Your task to perform on an android device: Open battery settings Image 0: 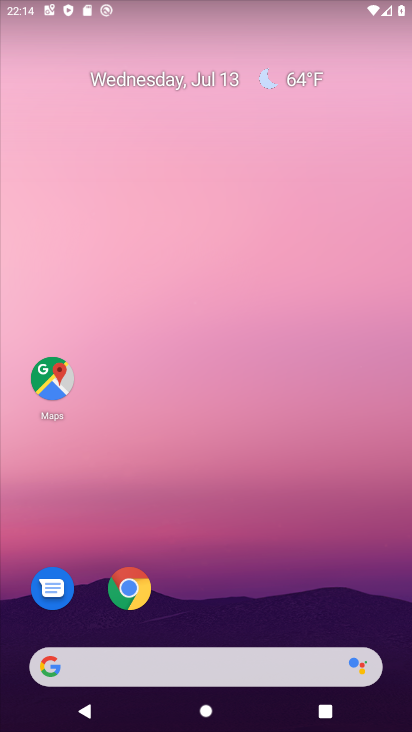
Step 0: drag from (193, 522) to (272, 32)
Your task to perform on an android device: Open battery settings Image 1: 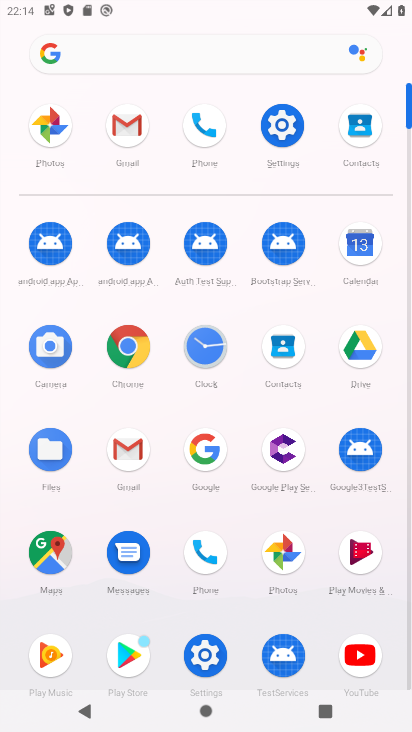
Step 1: click (278, 126)
Your task to perform on an android device: Open battery settings Image 2: 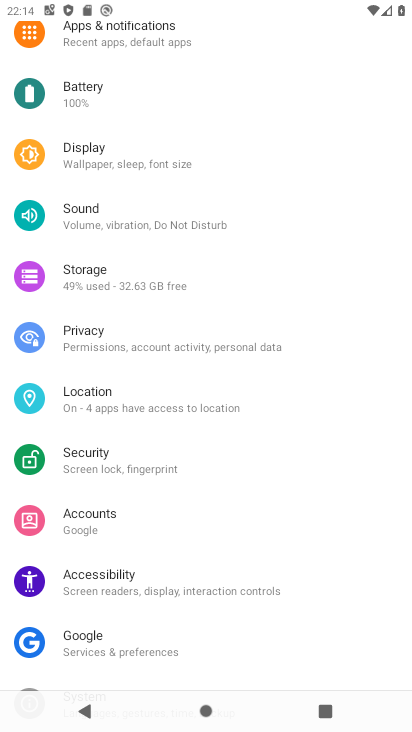
Step 2: click (64, 76)
Your task to perform on an android device: Open battery settings Image 3: 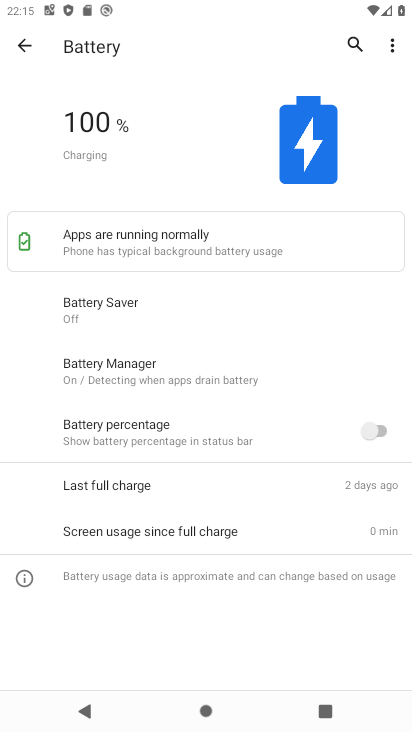
Step 3: task complete